Your task to perform on an android device: Go to eBay Image 0: 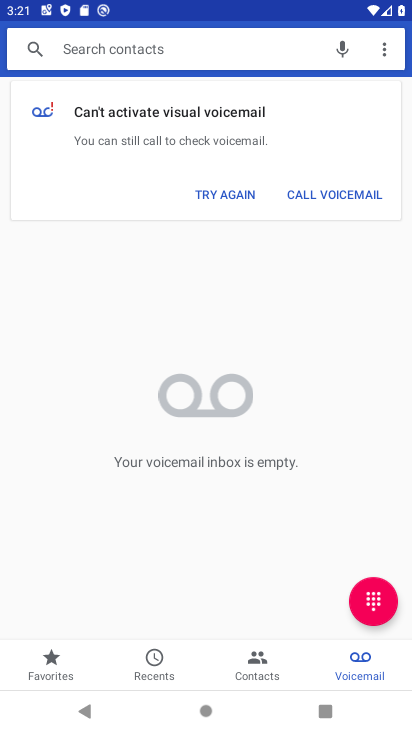
Step 0: press home button
Your task to perform on an android device: Go to eBay Image 1: 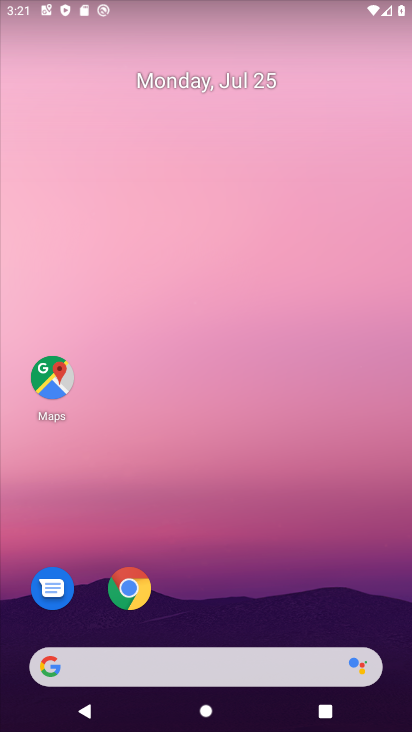
Step 1: click (127, 591)
Your task to perform on an android device: Go to eBay Image 2: 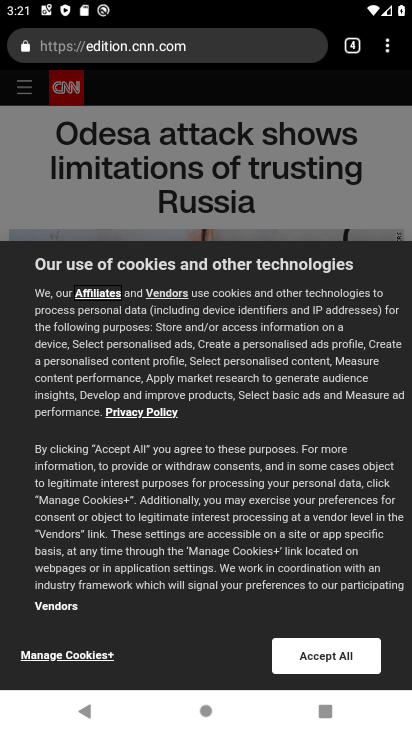
Step 2: click (355, 44)
Your task to perform on an android device: Go to eBay Image 3: 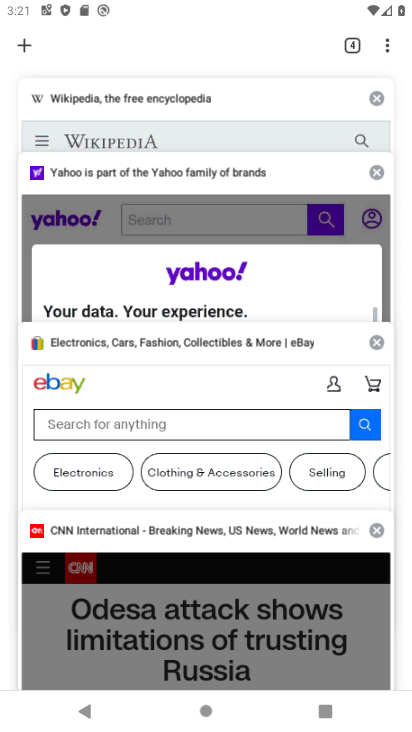
Step 3: click (25, 49)
Your task to perform on an android device: Go to eBay Image 4: 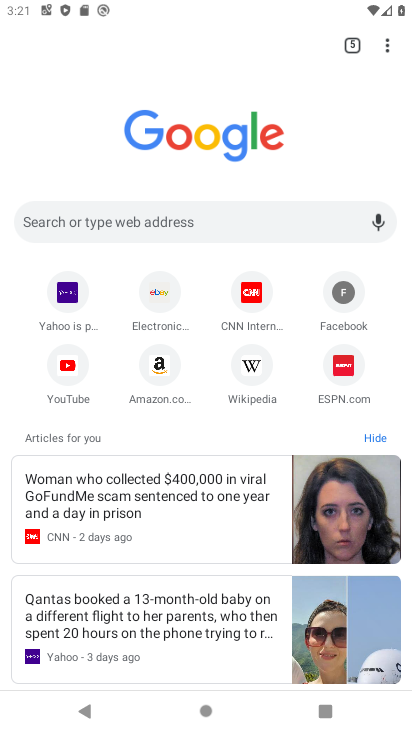
Step 4: click (165, 289)
Your task to perform on an android device: Go to eBay Image 5: 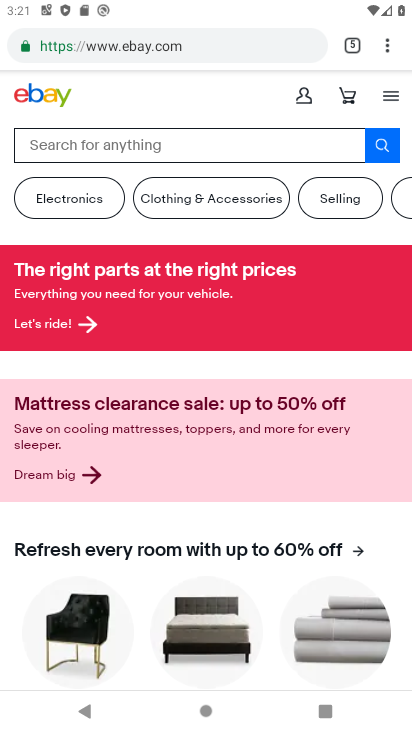
Step 5: task complete